Your task to perform on an android device: change keyboard looks Image 0: 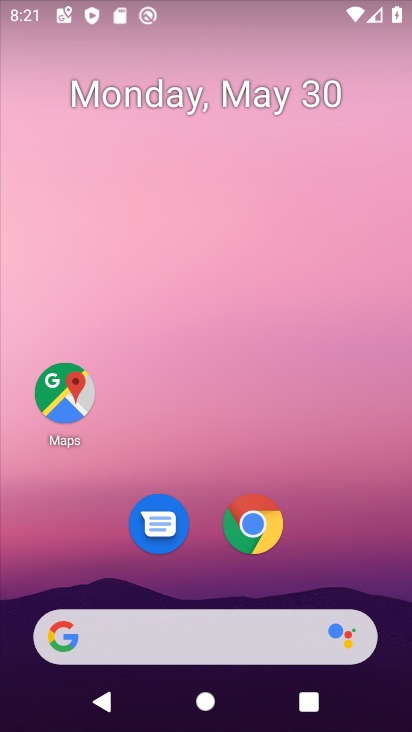
Step 0: drag from (233, 470) to (297, 0)
Your task to perform on an android device: change keyboard looks Image 1: 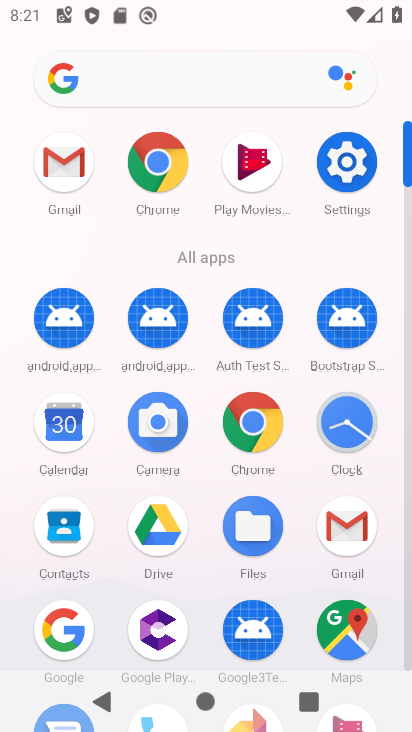
Step 1: click (351, 165)
Your task to perform on an android device: change keyboard looks Image 2: 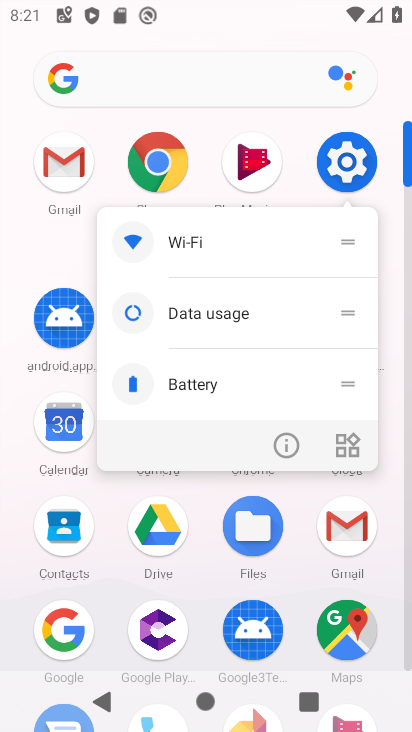
Step 2: click (351, 162)
Your task to perform on an android device: change keyboard looks Image 3: 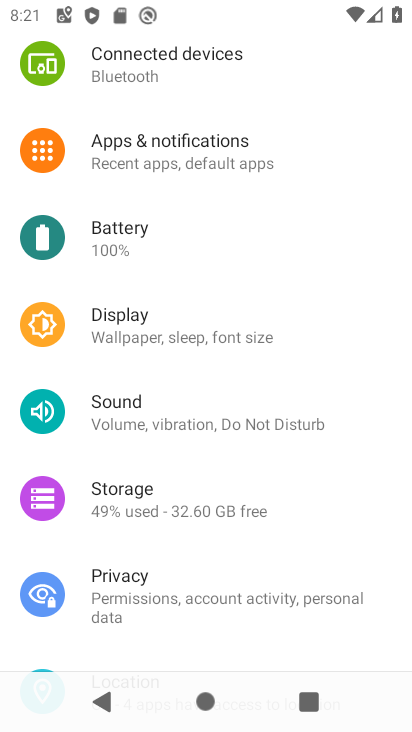
Step 3: drag from (216, 552) to (289, 0)
Your task to perform on an android device: change keyboard looks Image 4: 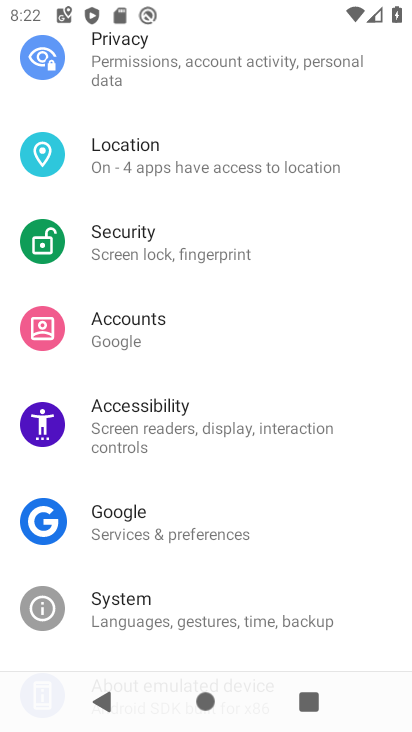
Step 4: click (169, 598)
Your task to perform on an android device: change keyboard looks Image 5: 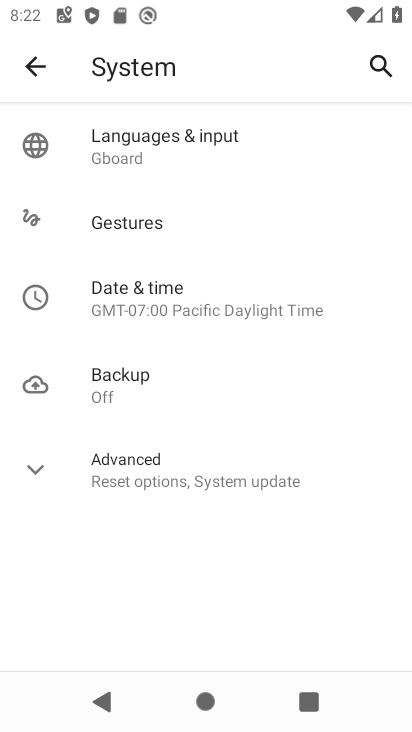
Step 5: click (190, 139)
Your task to perform on an android device: change keyboard looks Image 6: 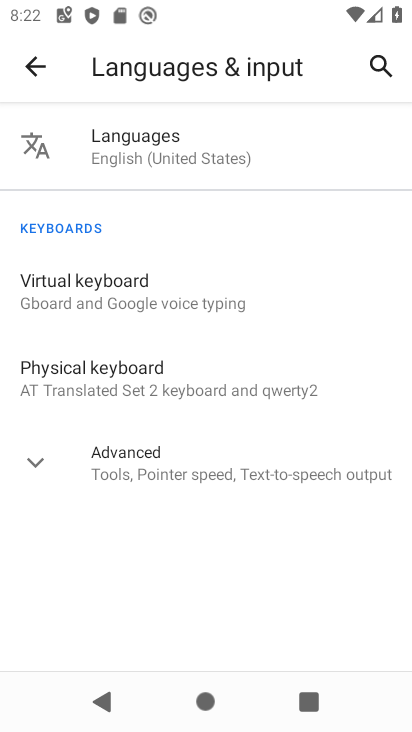
Step 6: click (93, 303)
Your task to perform on an android device: change keyboard looks Image 7: 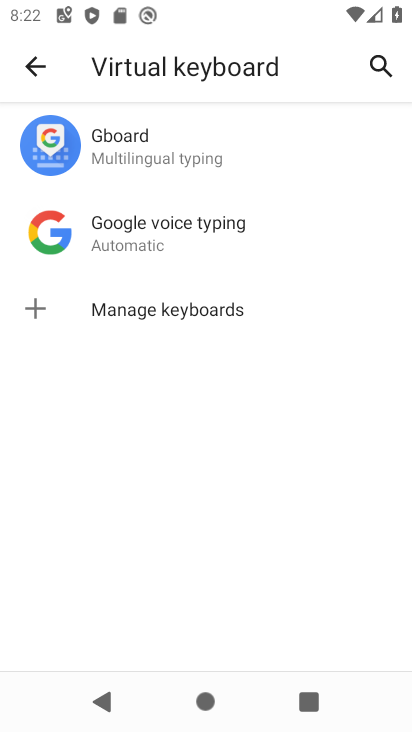
Step 7: click (169, 150)
Your task to perform on an android device: change keyboard looks Image 8: 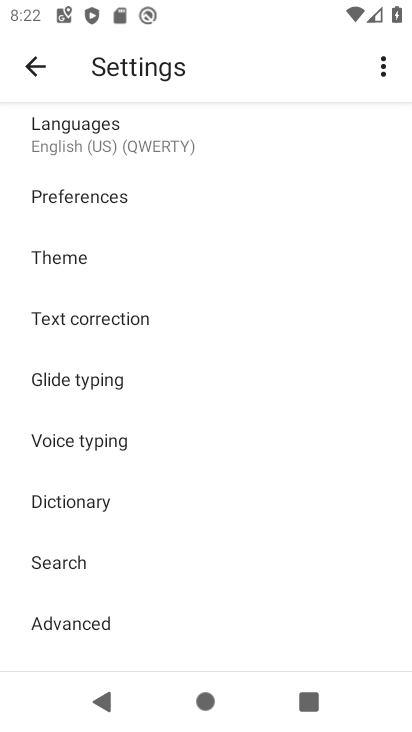
Step 8: click (57, 260)
Your task to perform on an android device: change keyboard looks Image 9: 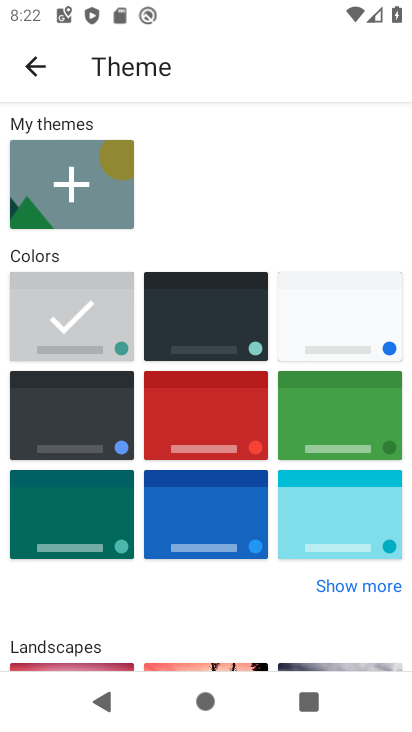
Step 9: click (177, 403)
Your task to perform on an android device: change keyboard looks Image 10: 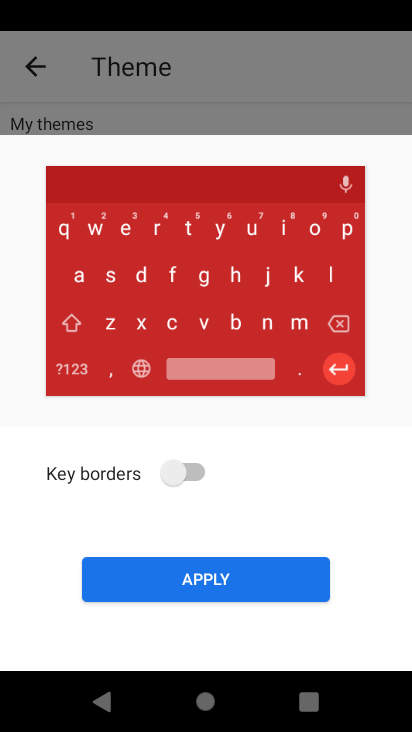
Step 10: click (189, 466)
Your task to perform on an android device: change keyboard looks Image 11: 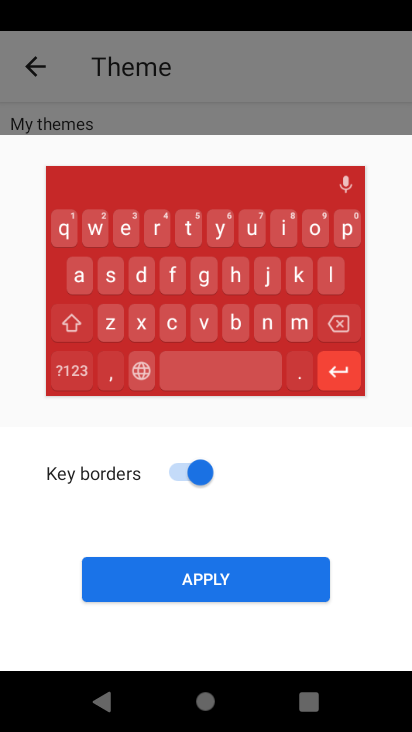
Step 11: click (247, 581)
Your task to perform on an android device: change keyboard looks Image 12: 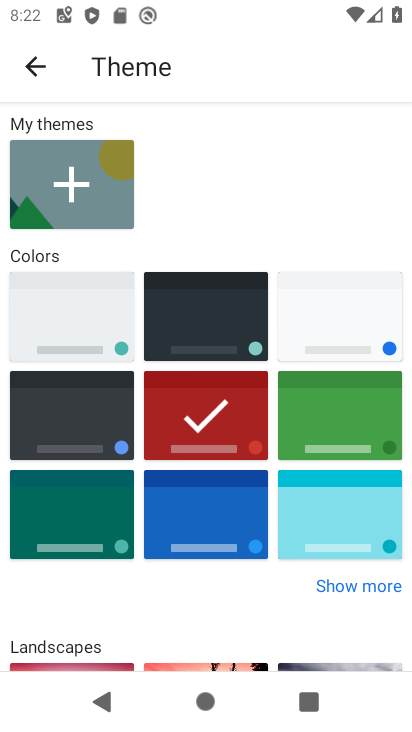
Step 12: task complete